Your task to perform on an android device: Open calendar and show me the second week of next month Image 0: 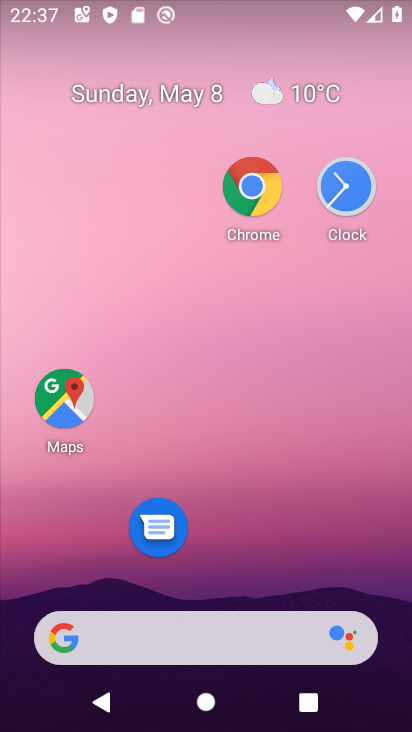
Step 0: drag from (306, 565) to (255, 77)
Your task to perform on an android device: Open calendar and show me the second week of next month Image 1: 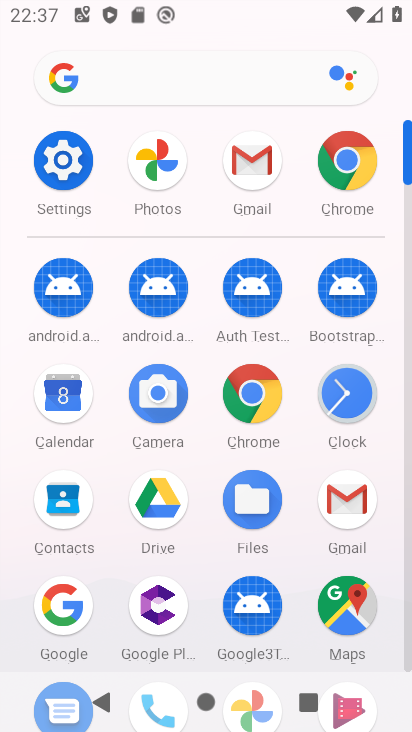
Step 1: drag from (213, 564) to (215, 307)
Your task to perform on an android device: Open calendar and show me the second week of next month Image 2: 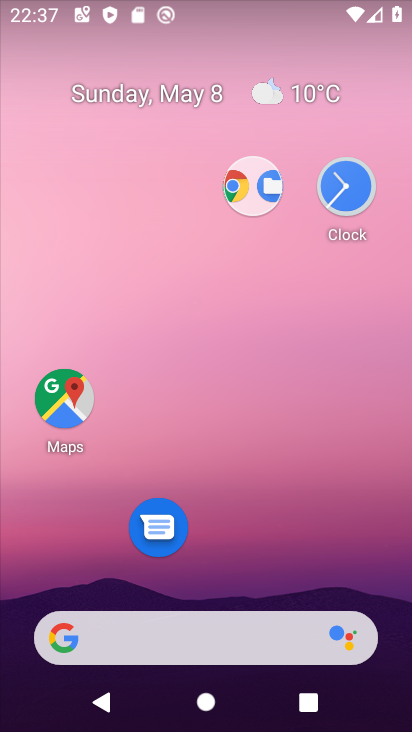
Step 2: drag from (233, 527) to (227, 563)
Your task to perform on an android device: Open calendar and show me the second week of next month Image 3: 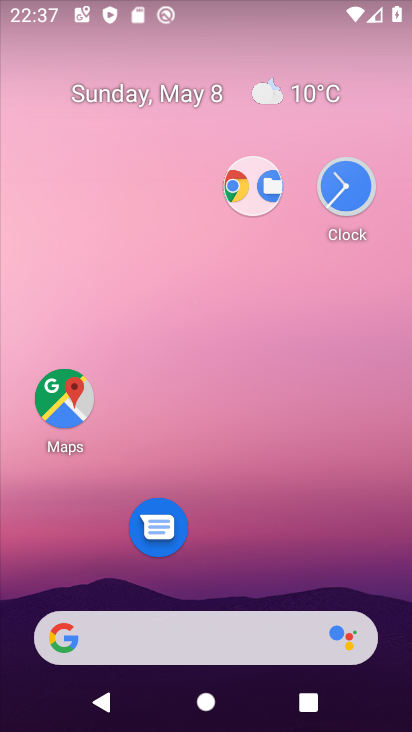
Step 3: click (164, 94)
Your task to perform on an android device: Open calendar and show me the second week of next month Image 4: 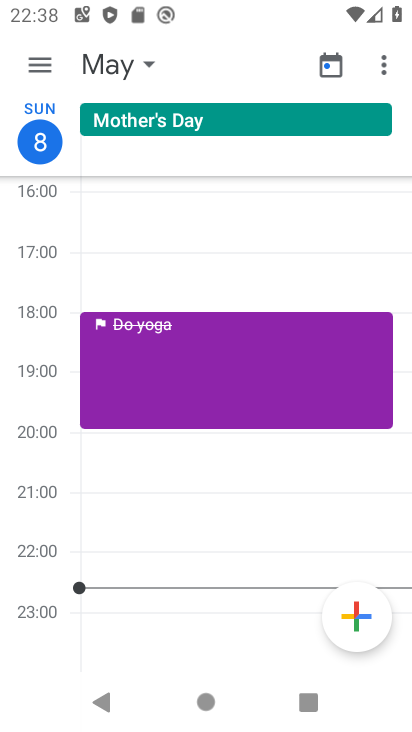
Step 4: click (138, 63)
Your task to perform on an android device: Open calendar and show me the second week of next month Image 5: 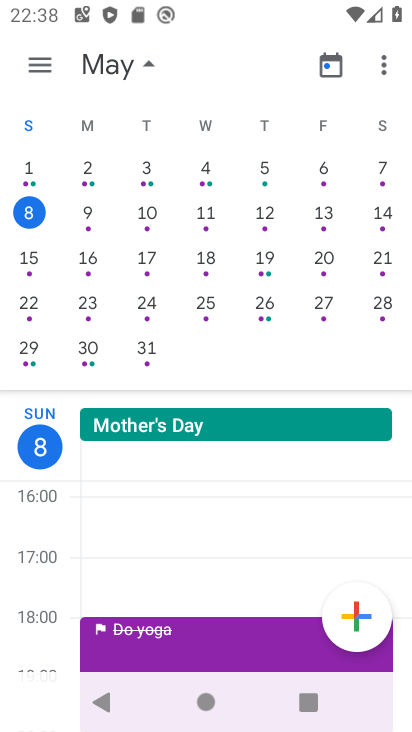
Step 5: drag from (303, 228) to (54, 212)
Your task to perform on an android device: Open calendar and show me the second week of next month Image 6: 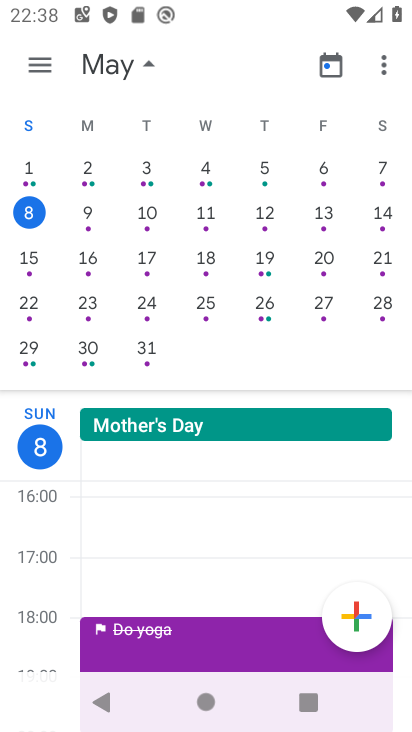
Step 6: drag from (260, 229) to (0, 259)
Your task to perform on an android device: Open calendar and show me the second week of next month Image 7: 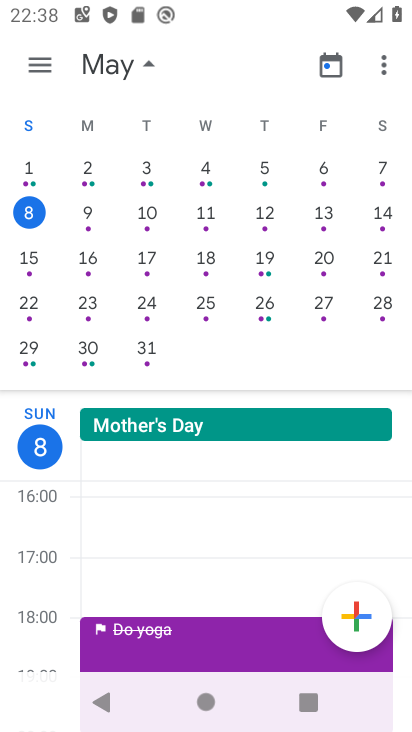
Step 7: drag from (319, 236) to (1, 233)
Your task to perform on an android device: Open calendar and show me the second week of next month Image 8: 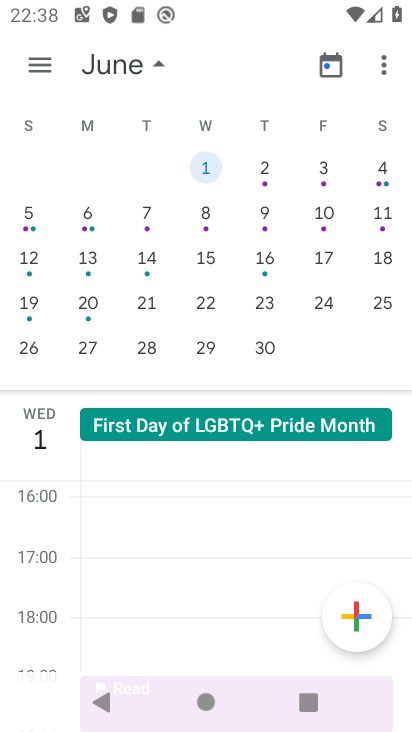
Step 8: click (33, 208)
Your task to perform on an android device: Open calendar and show me the second week of next month Image 9: 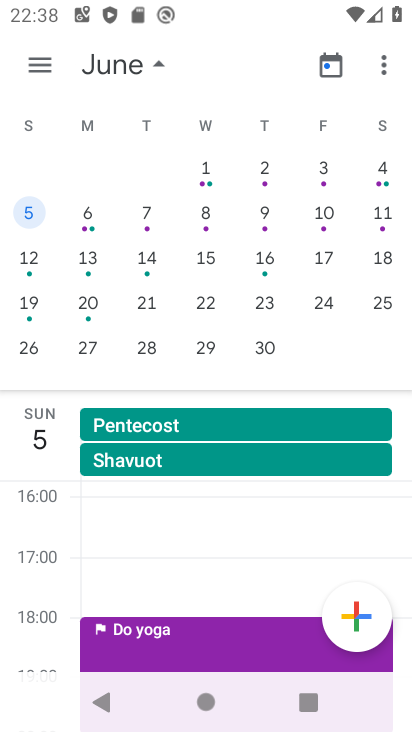
Step 9: task complete